Your task to perform on an android device: Search for vegetarian restaurants on Maps Image 0: 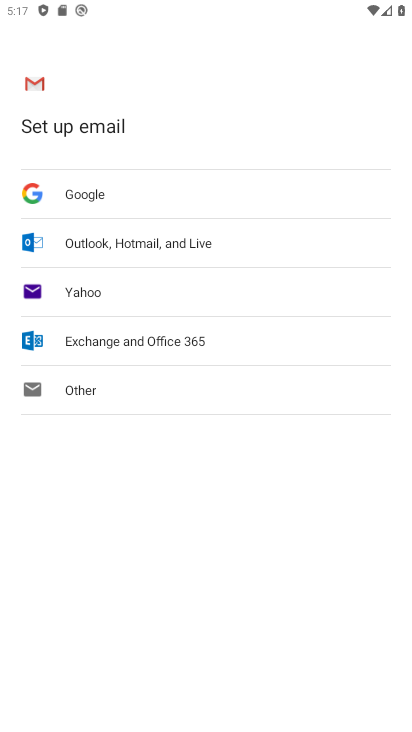
Step 0: press home button
Your task to perform on an android device: Search for vegetarian restaurants on Maps Image 1: 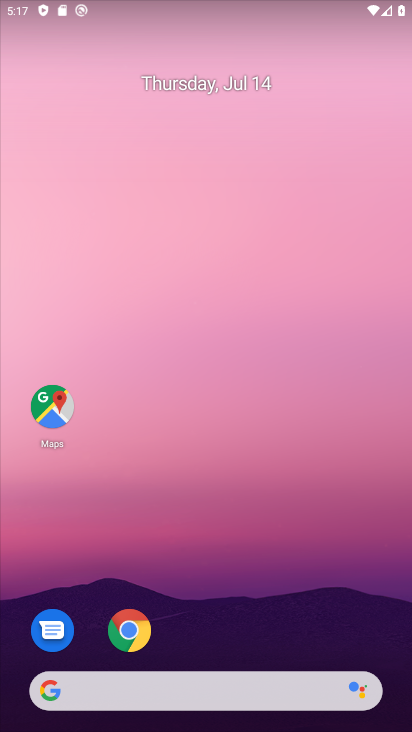
Step 1: drag from (198, 653) to (276, 94)
Your task to perform on an android device: Search for vegetarian restaurants on Maps Image 2: 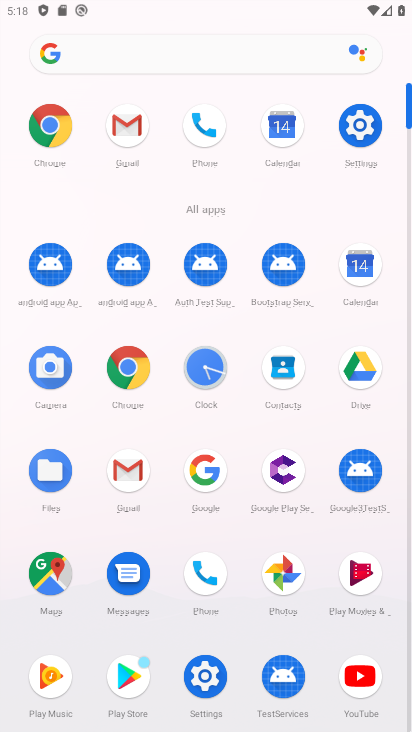
Step 2: click (51, 576)
Your task to perform on an android device: Search for vegetarian restaurants on Maps Image 3: 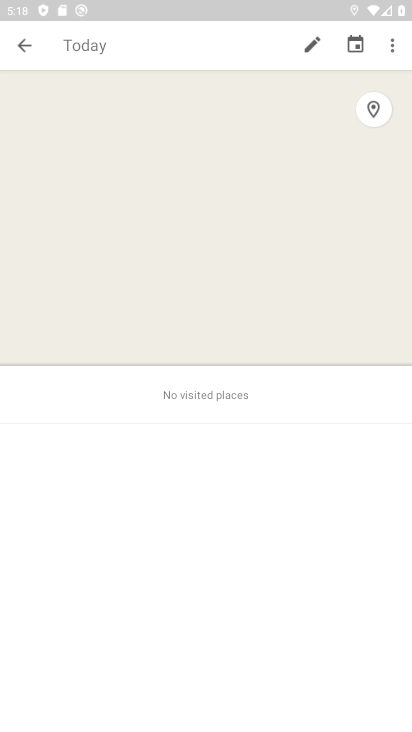
Step 3: click (144, 39)
Your task to perform on an android device: Search for vegetarian restaurants on Maps Image 4: 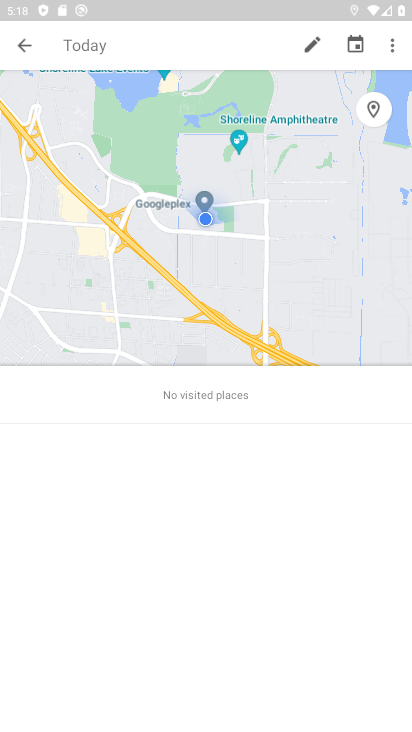
Step 4: click (128, 47)
Your task to perform on an android device: Search for vegetarian restaurants on Maps Image 5: 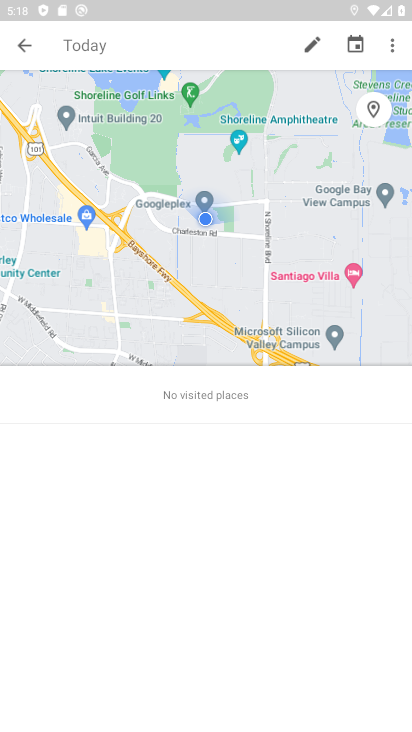
Step 5: click (128, 47)
Your task to perform on an android device: Search for vegetarian restaurants on Maps Image 6: 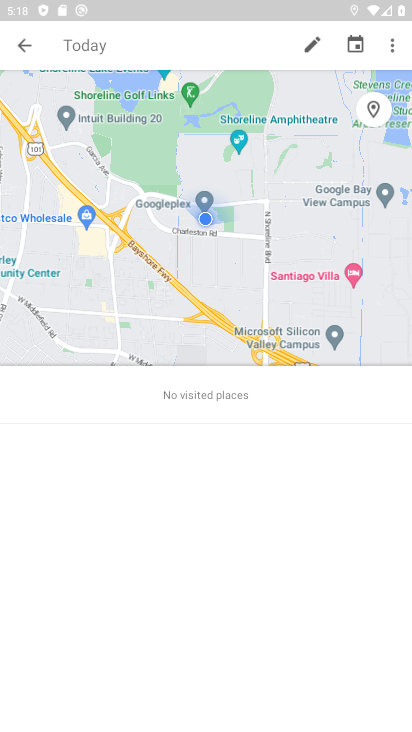
Step 6: click (67, 61)
Your task to perform on an android device: Search for vegetarian restaurants on Maps Image 7: 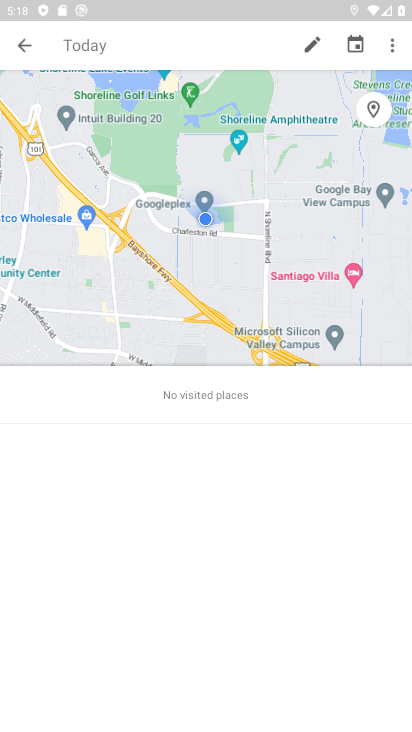
Step 7: click (28, 50)
Your task to perform on an android device: Search for vegetarian restaurants on Maps Image 8: 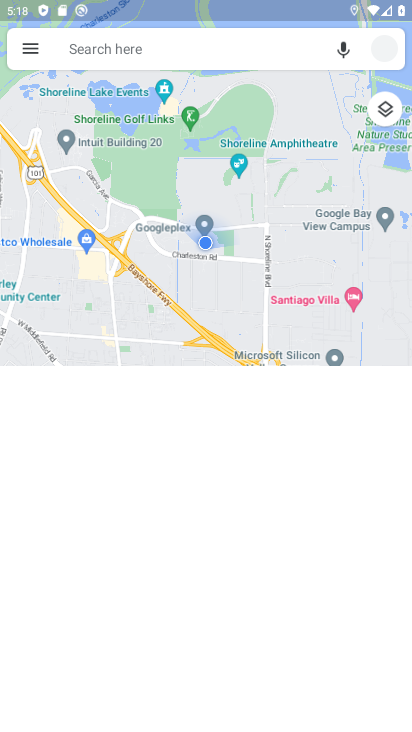
Step 8: click (105, 50)
Your task to perform on an android device: Search for vegetarian restaurants on Maps Image 9: 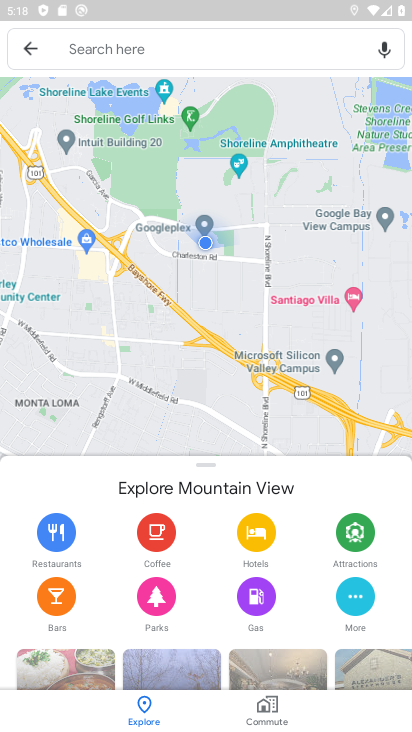
Step 9: click (106, 49)
Your task to perform on an android device: Search for vegetarian restaurants on Maps Image 10: 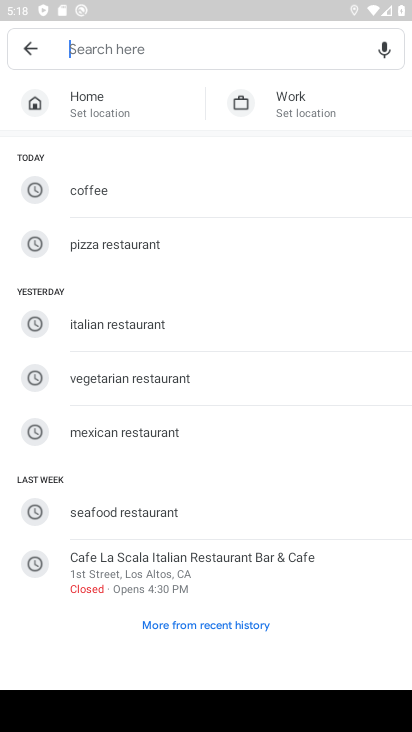
Step 10: click (158, 384)
Your task to perform on an android device: Search for vegetarian restaurants on Maps Image 11: 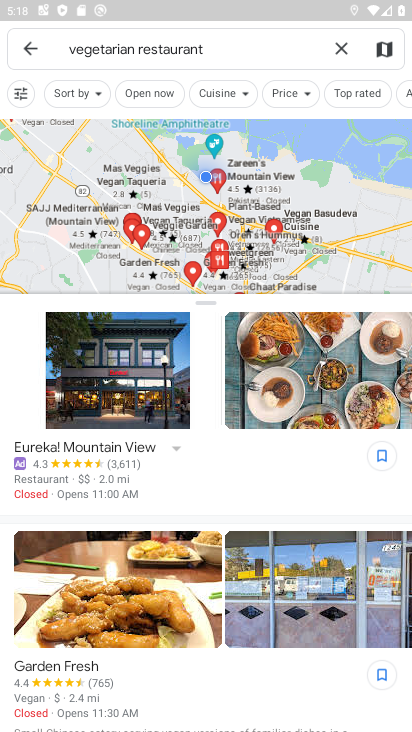
Step 11: task complete